Your task to perform on an android device: turn pop-ups off in chrome Image 0: 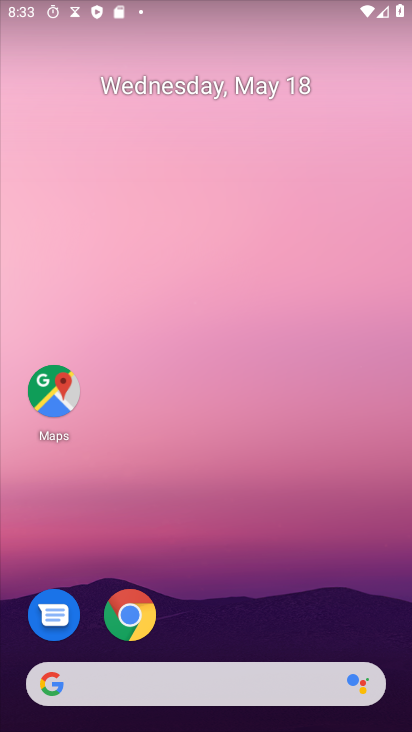
Step 0: click (133, 608)
Your task to perform on an android device: turn pop-ups off in chrome Image 1: 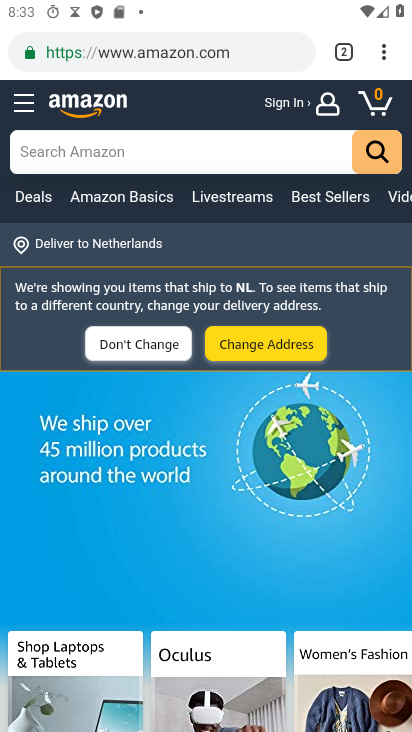
Step 1: click (366, 185)
Your task to perform on an android device: turn pop-ups off in chrome Image 2: 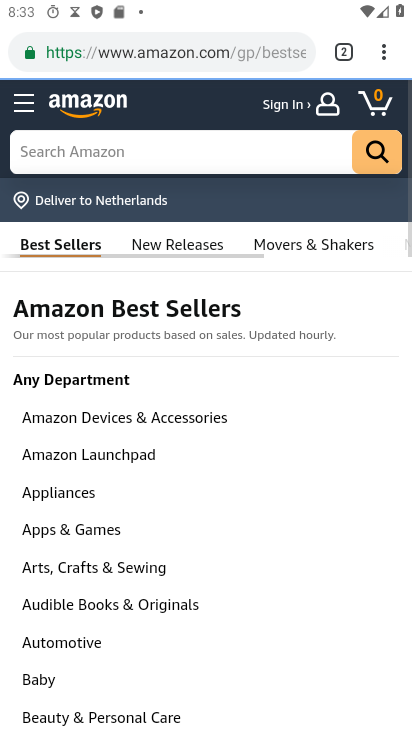
Step 2: click (390, 50)
Your task to perform on an android device: turn pop-ups off in chrome Image 3: 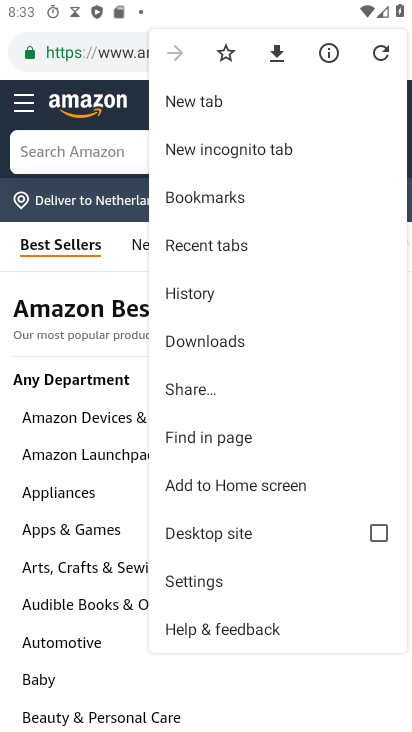
Step 3: click (224, 582)
Your task to perform on an android device: turn pop-ups off in chrome Image 4: 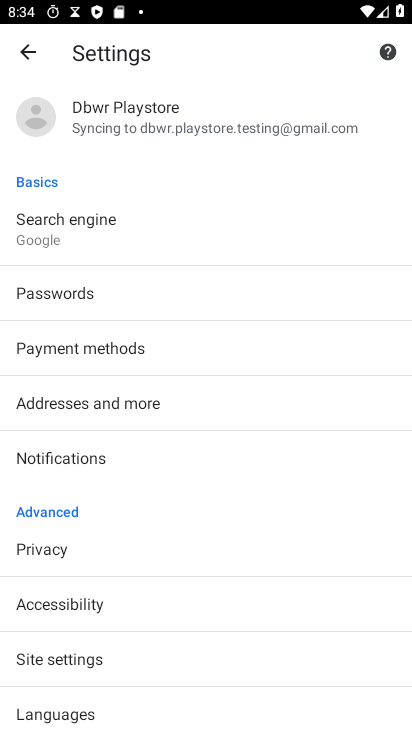
Step 4: click (120, 670)
Your task to perform on an android device: turn pop-ups off in chrome Image 5: 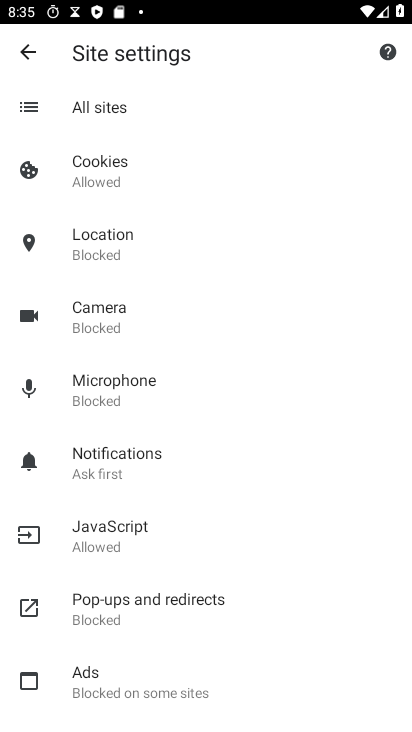
Step 5: click (143, 615)
Your task to perform on an android device: turn pop-ups off in chrome Image 6: 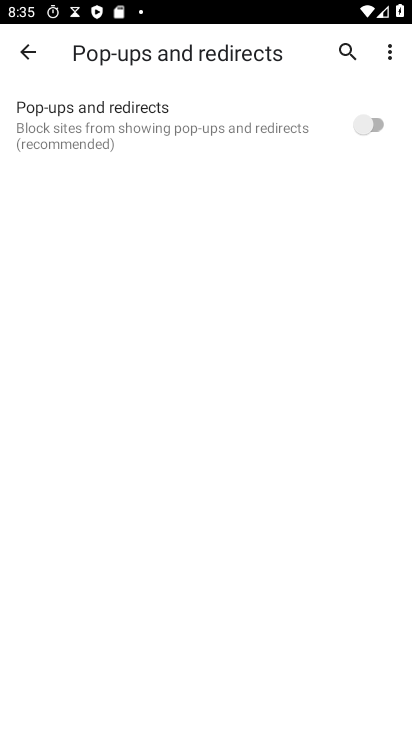
Step 6: click (378, 120)
Your task to perform on an android device: turn pop-ups off in chrome Image 7: 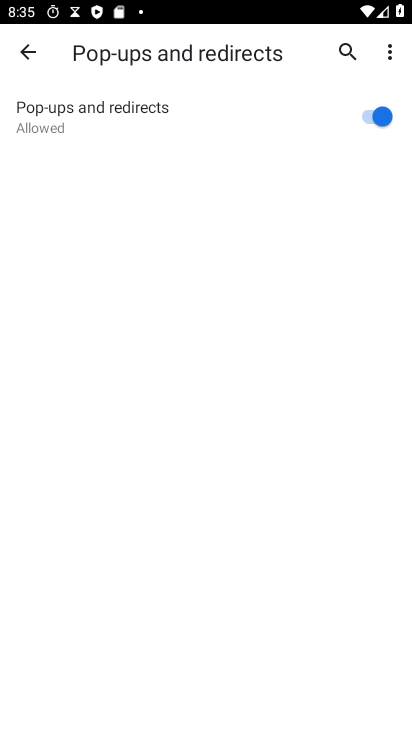
Step 7: task complete